Your task to perform on an android device: Open Reddit.com Image 0: 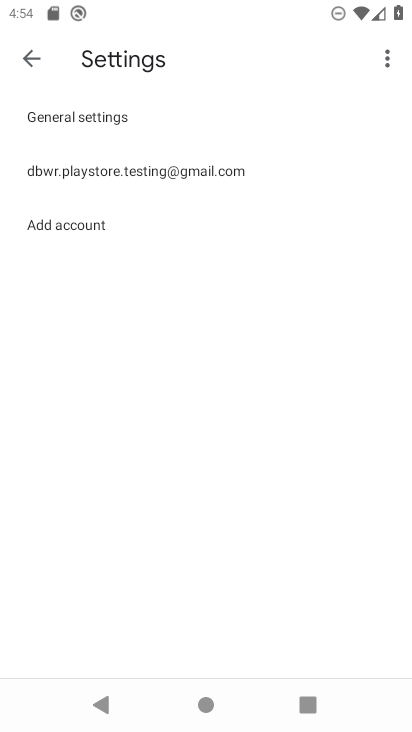
Step 0: press home button
Your task to perform on an android device: Open Reddit.com Image 1: 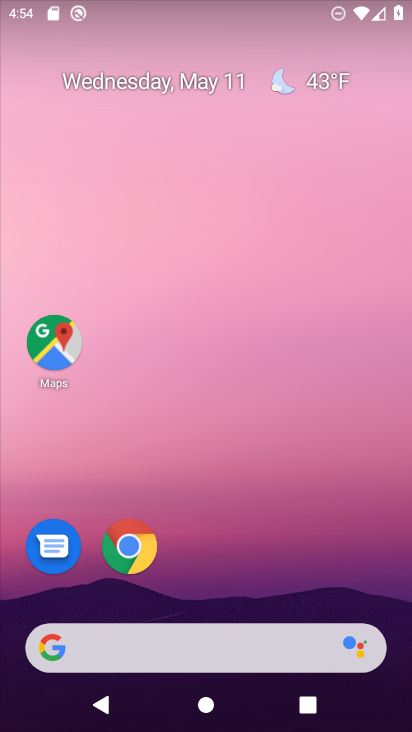
Step 1: drag from (152, 632) to (170, 243)
Your task to perform on an android device: Open Reddit.com Image 2: 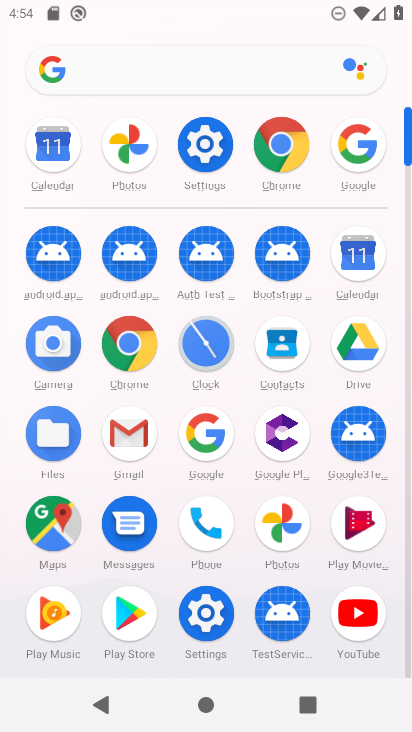
Step 2: click (222, 435)
Your task to perform on an android device: Open Reddit.com Image 3: 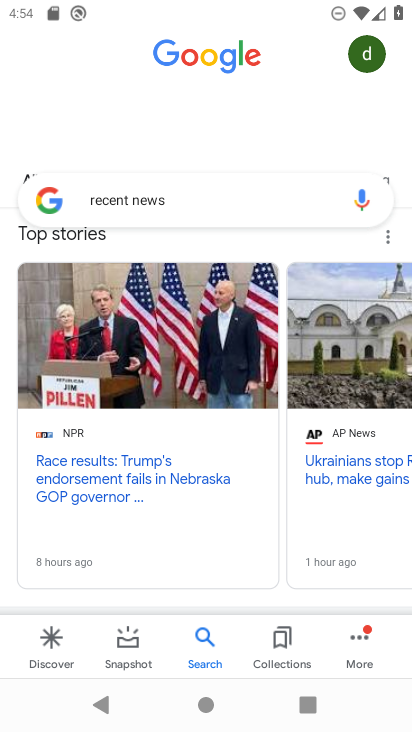
Step 3: click (246, 198)
Your task to perform on an android device: Open Reddit.com Image 4: 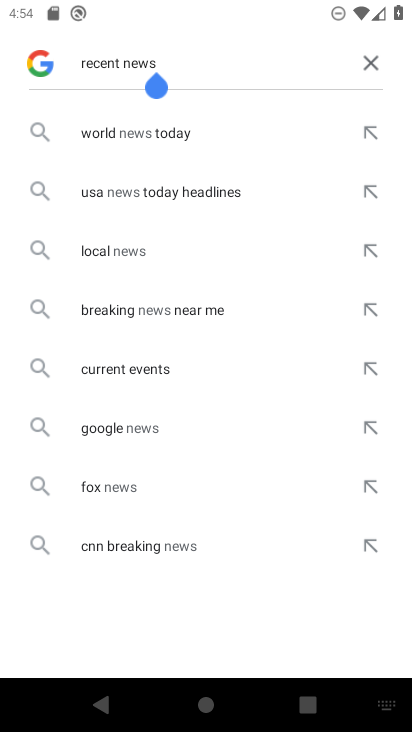
Step 4: click (365, 62)
Your task to perform on an android device: Open Reddit.com Image 5: 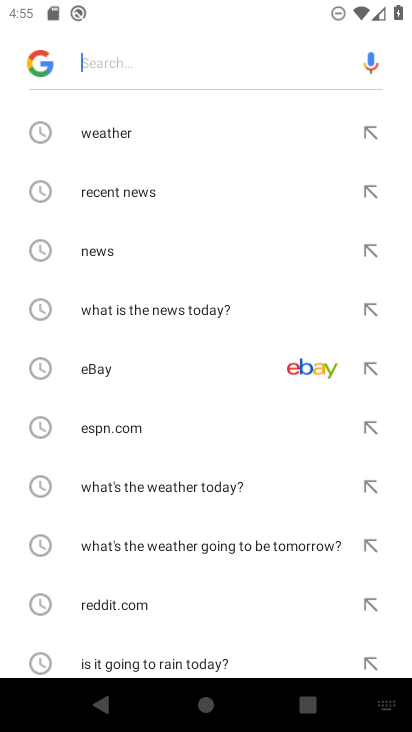
Step 5: drag from (141, 627) to (162, 287)
Your task to perform on an android device: Open Reddit.com Image 6: 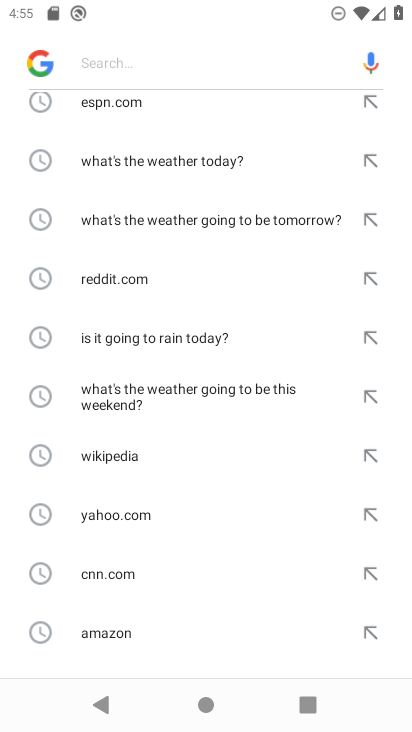
Step 6: click (112, 287)
Your task to perform on an android device: Open Reddit.com Image 7: 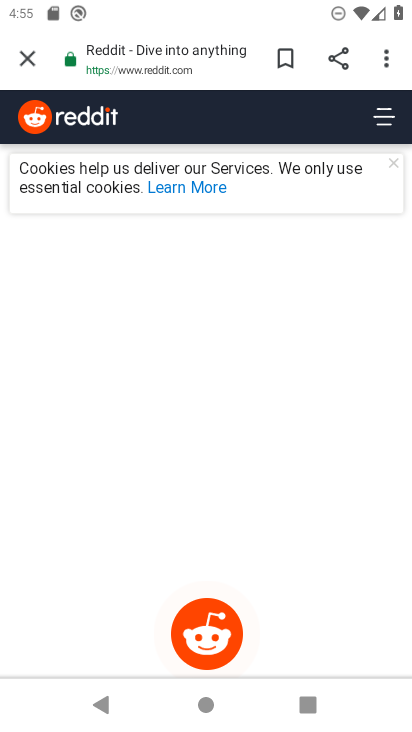
Step 7: task complete